Your task to perform on an android device: Go to accessibility settings Image 0: 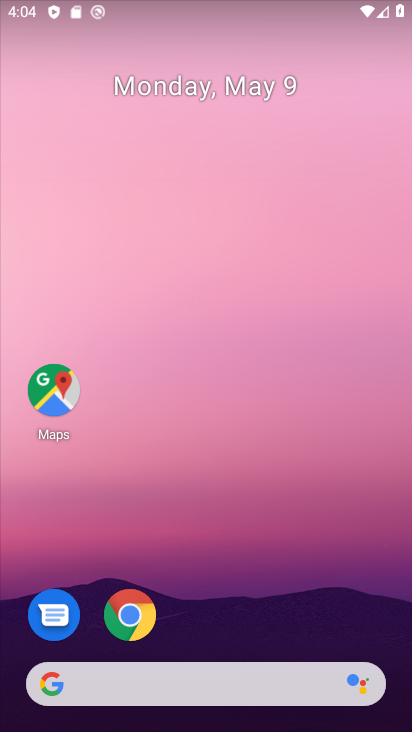
Step 0: drag from (238, 660) to (315, 220)
Your task to perform on an android device: Go to accessibility settings Image 1: 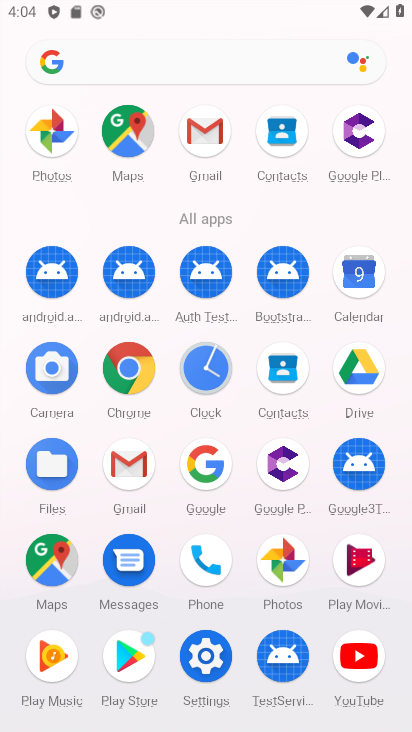
Step 1: click (213, 670)
Your task to perform on an android device: Go to accessibility settings Image 2: 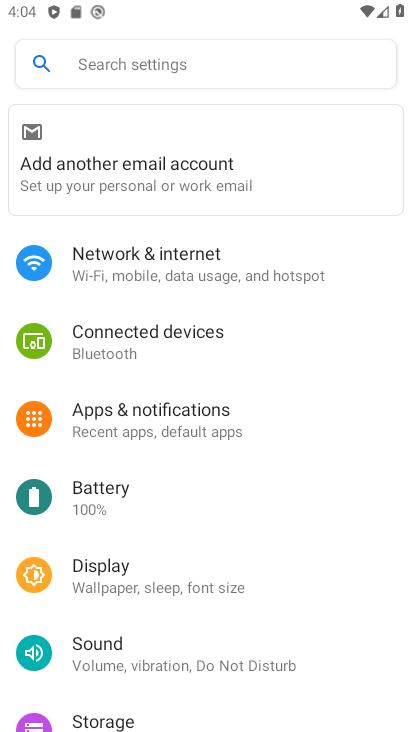
Step 2: drag from (213, 670) to (264, 516)
Your task to perform on an android device: Go to accessibility settings Image 3: 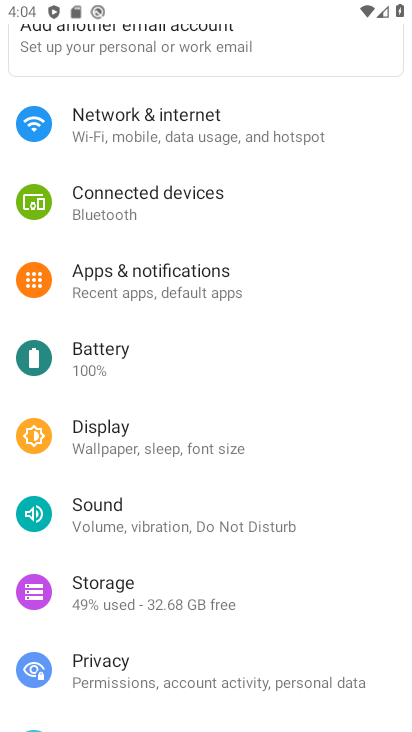
Step 3: drag from (197, 640) to (281, 404)
Your task to perform on an android device: Go to accessibility settings Image 4: 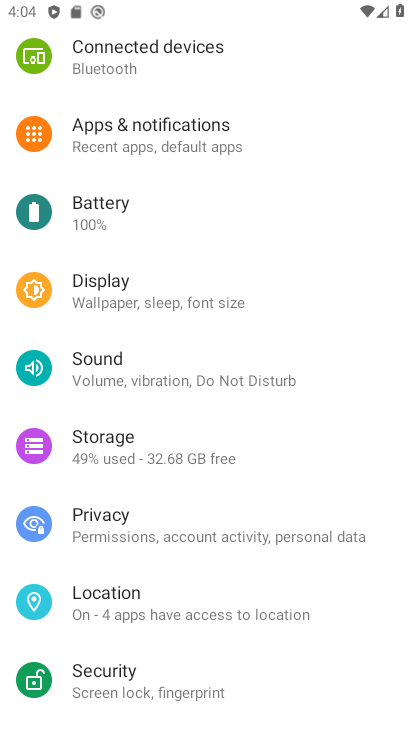
Step 4: drag from (212, 624) to (252, 473)
Your task to perform on an android device: Go to accessibility settings Image 5: 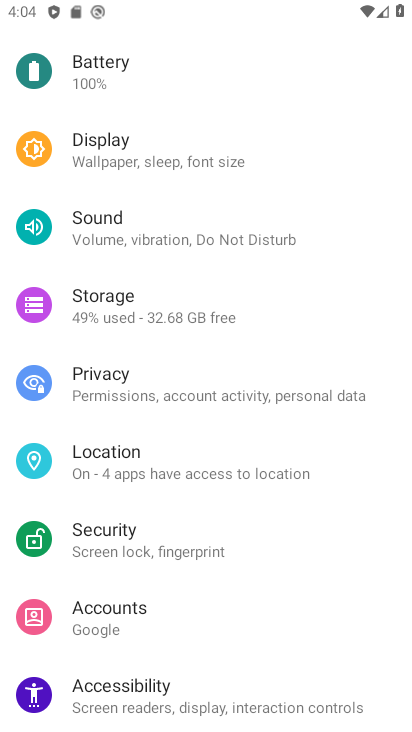
Step 5: click (194, 699)
Your task to perform on an android device: Go to accessibility settings Image 6: 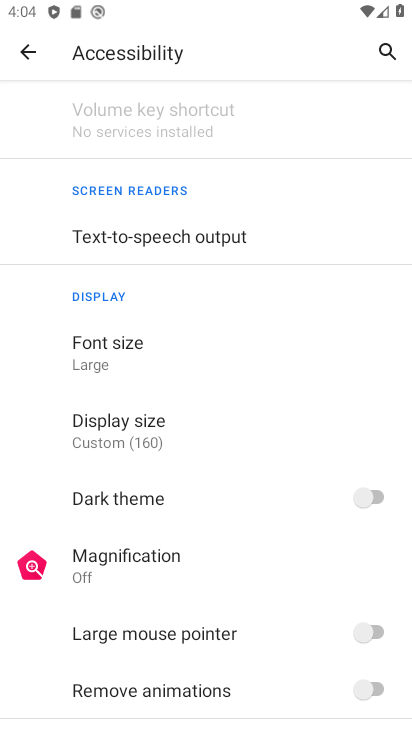
Step 6: task complete